Your task to perform on an android device: Do I have any events tomorrow? Image 0: 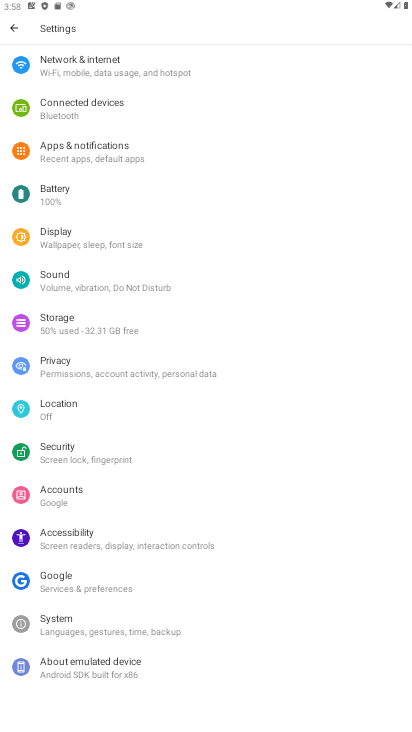
Step 0: press home button
Your task to perform on an android device: Do I have any events tomorrow? Image 1: 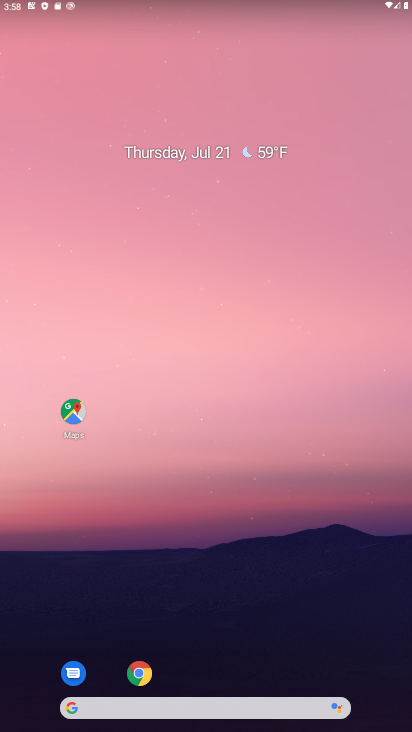
Step 1: drag from (389, 681) to (312, 93)
Your task to perform on an android device: Do I have any events tomorrow? Image 2: 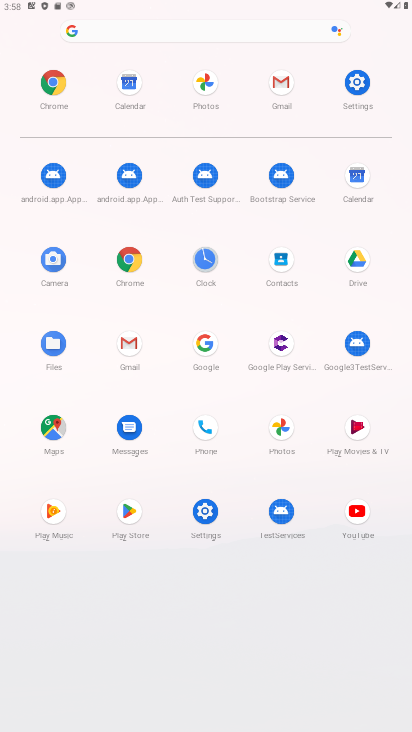
Step 2: click (358, 176)
Your task to perform on an android device: Do I have any events tomorrow? Image 3: 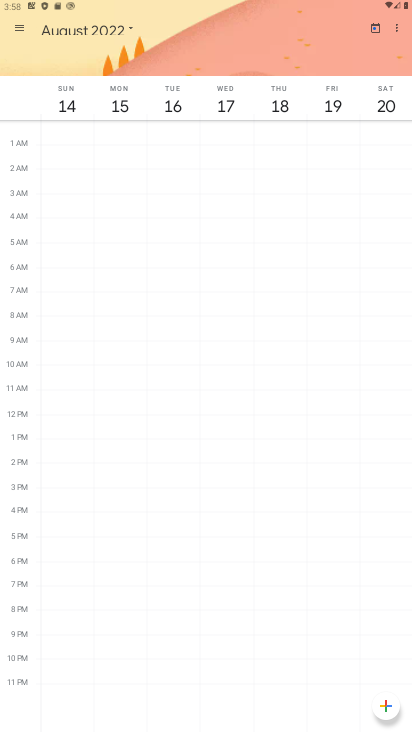
Step 3: click (16, 26)
Your task to perform on an android device: Do I have any events tomorrow? Image 4: 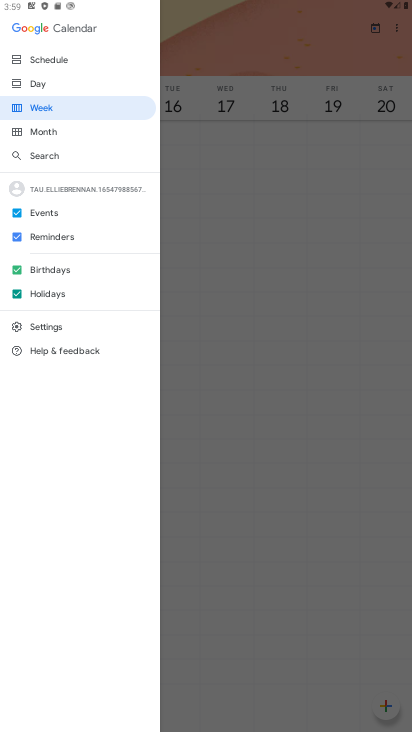
Step 4: click (39, 83)
Your task to perform on an android device: Do I have any events tomorrow? Image 5: 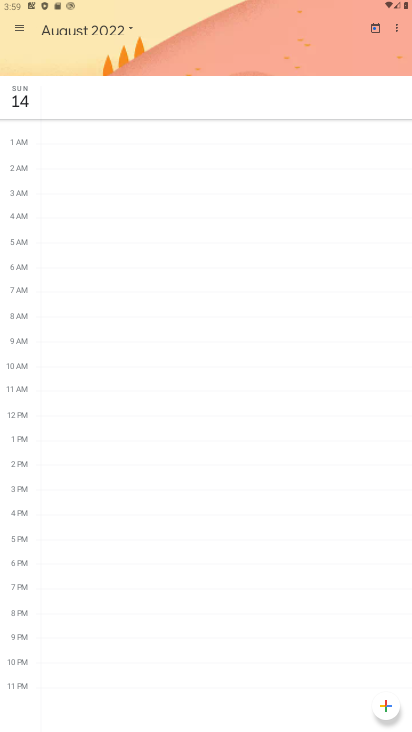
Step 5: click (127, 30)
Your task to perform on an android device: Do I have any events tomorrow? Image 6: 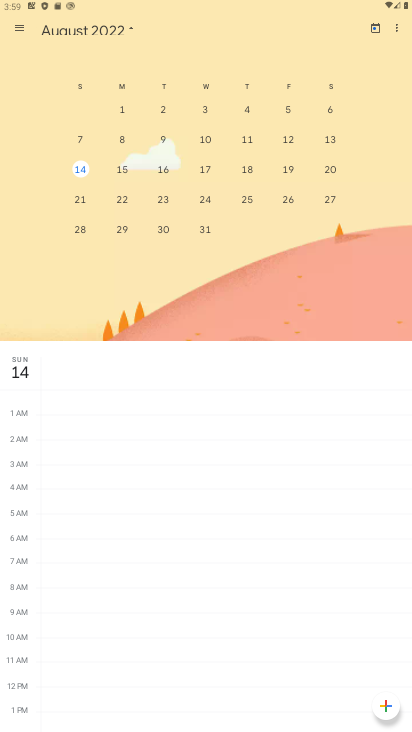
Step 6: drag from (75, 195) to (353, 196)
Your task to perform on an android device: Do I have any events tomorrow? Image 7: 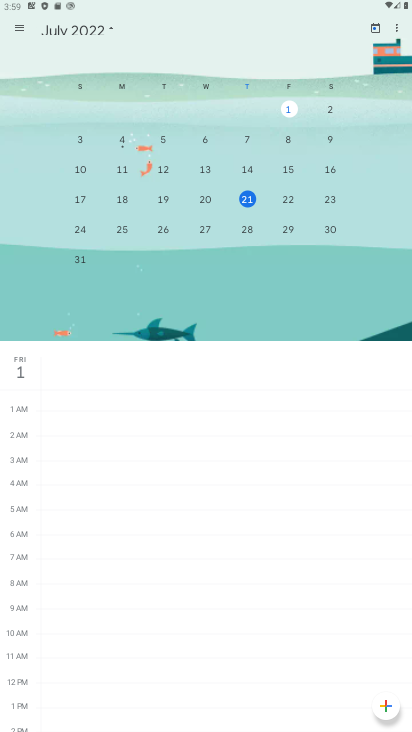
Step 7: click (291, 198)
Your task to perform on an android device: Do I have any events tomorrow? Image 8: 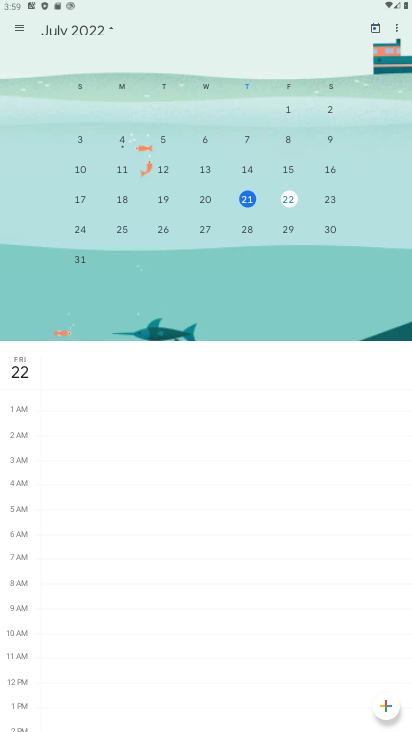
Step 8: task complete